Your task to perform on an android device: turn off priority inbox in the gmail app Image 0: 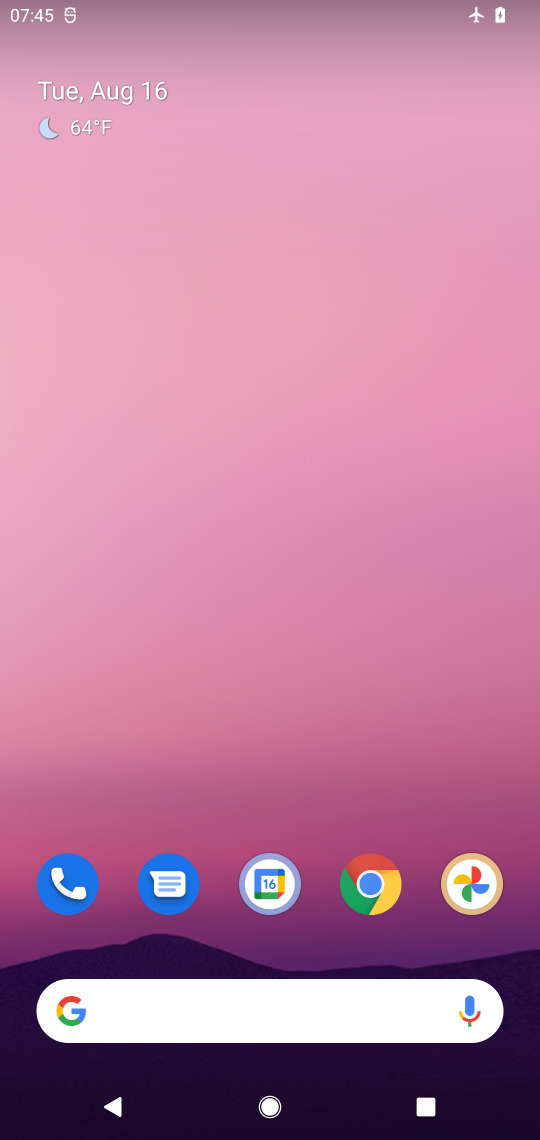
Step 0: press home button
Your task to perform on an android device: turn off priority inbox in the gmail app Image 1: 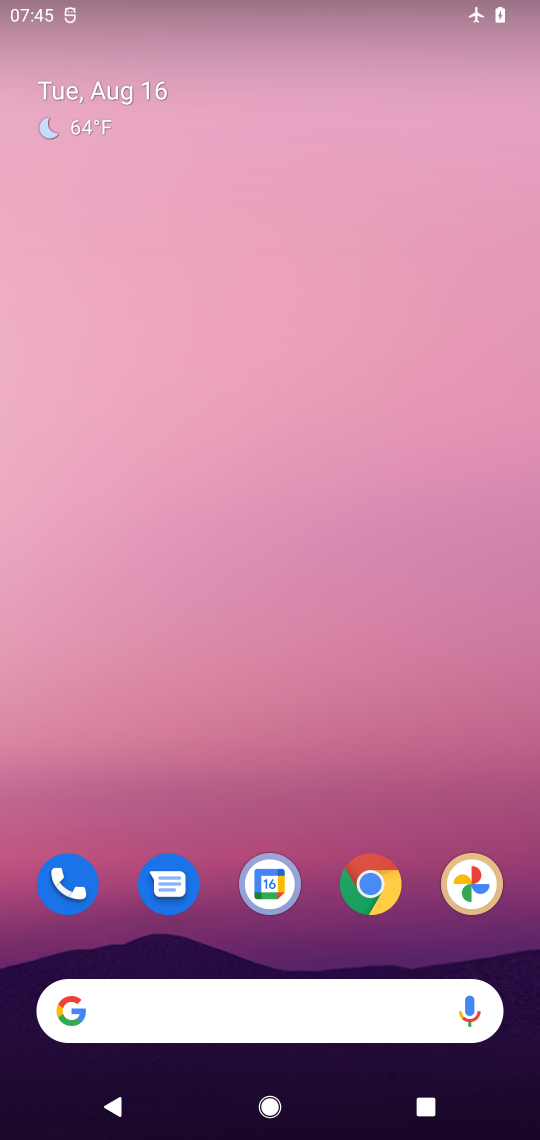
Step 1: drag from (306, 764) to (242, 1)
Your task to perform on an android device: turn off priority inbox in the gmail app Image 2: 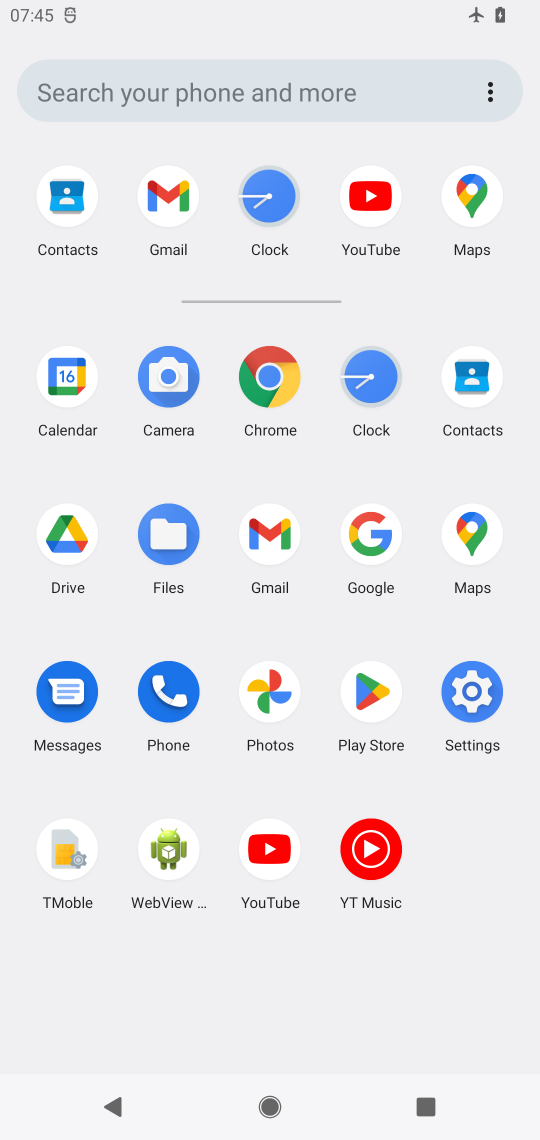
Step 2: click (256, 532)
Your task to perform on an android device: turn off priority inbox in the gmail app Image 3: 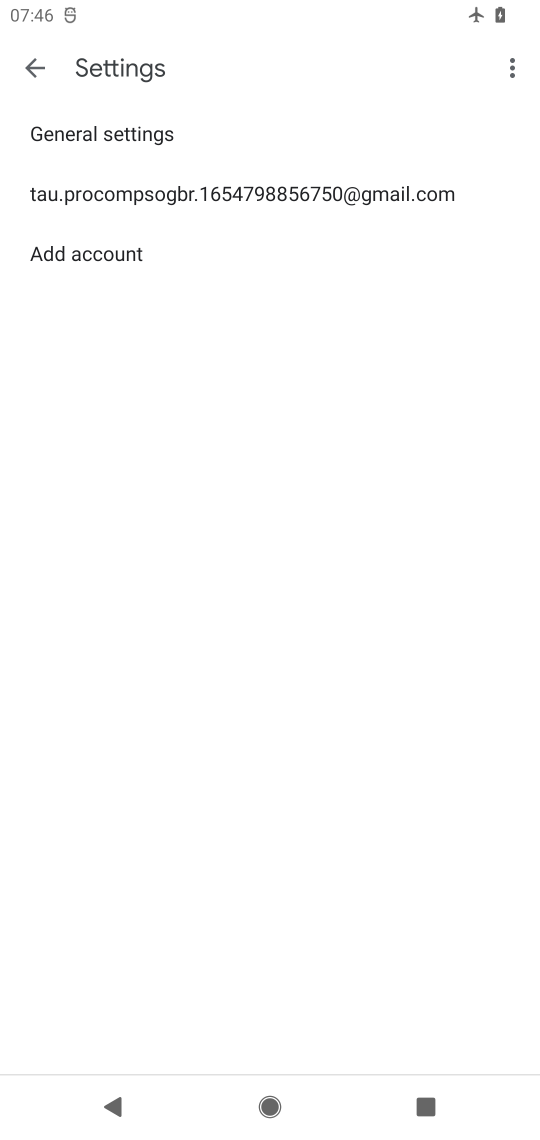
Step 3: click (79, 187)
Your task to perform on an android device: turn off priority inbox in the gmail app Image 4: 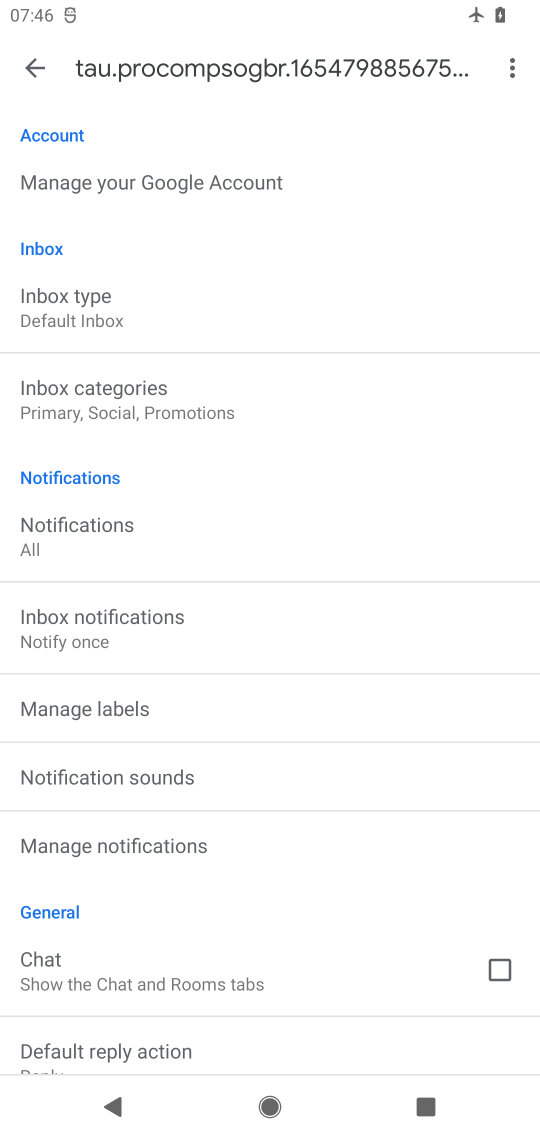
Step 4: click (119, 308)
Your task to perform on an android device: turn off priority inbox in the gmail app Image 5: 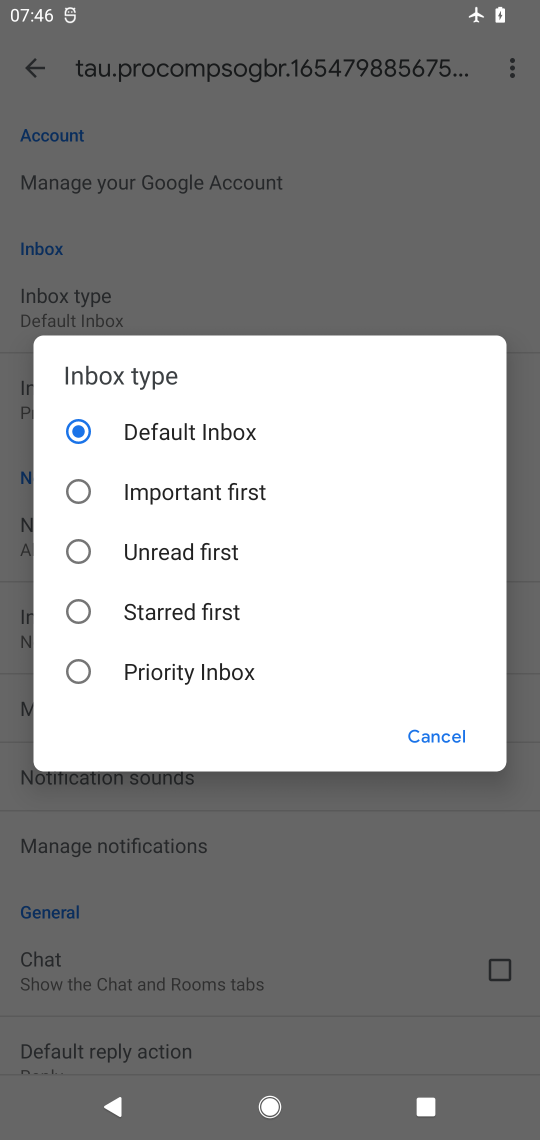
Step 5: task complete